Your task to perform on an android device: check the backup settings in the google photos Image 0: 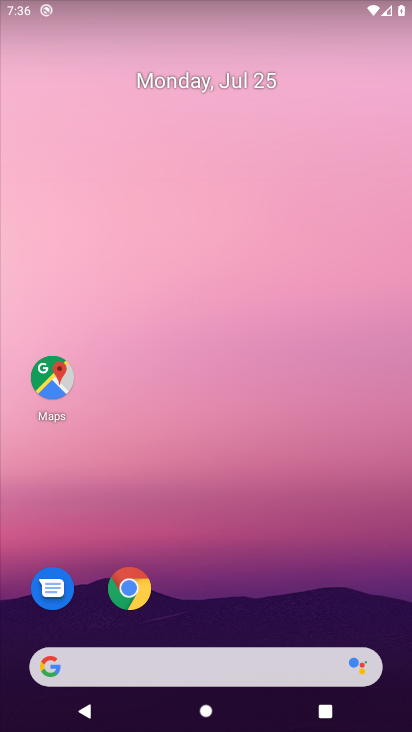
Step 0: drag from (261, 592) to (235, 161)
Your task to perform on an android device: check the backup settings in the google photos Image 1: 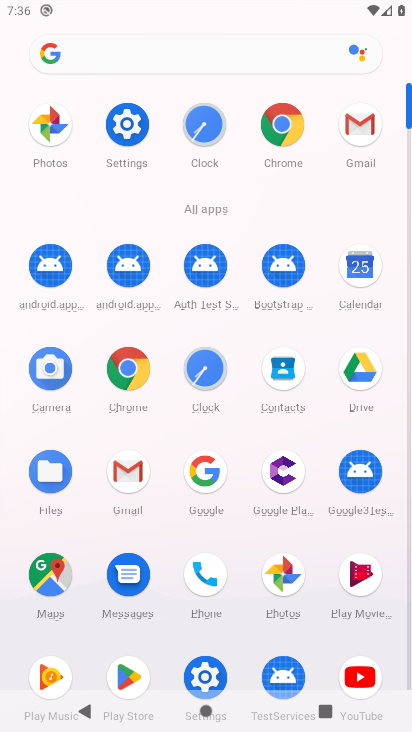
Step 1: task complete